Your task to perform on an android device: open the mobile data screen to see how much data has been used Image 0: 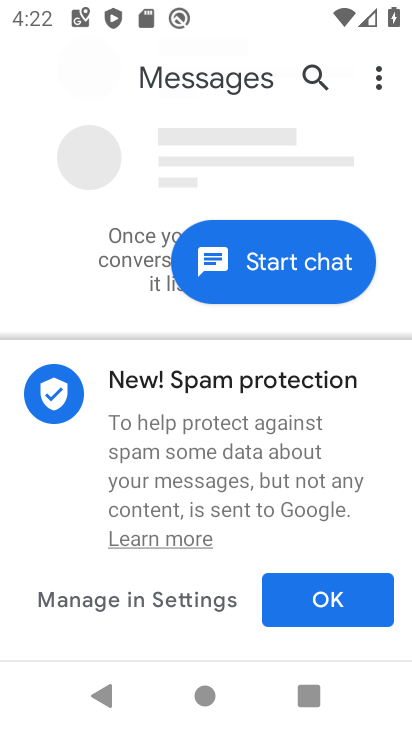
Step 0: press home button
Your task to perform on an android device: open the mobile data screen to see how much data has been used Image 1: 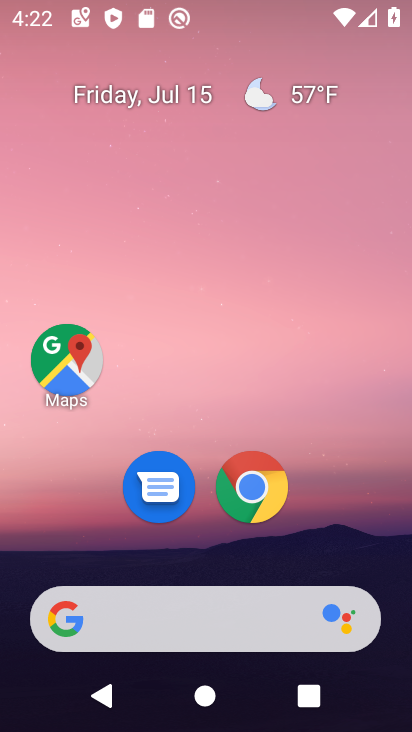
Step 1: drag from (220, 648) to (260, 92)
Your task to perform on an android device: open the mobile data screen to see how much data has been used Image 2: 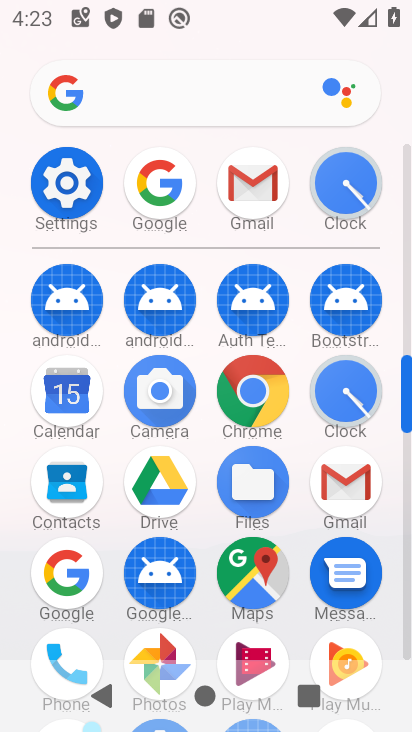
Step 2: click (68, 170)
Your task to perform on an android device: open the mobile data screen to see how much data has been used Image 3: 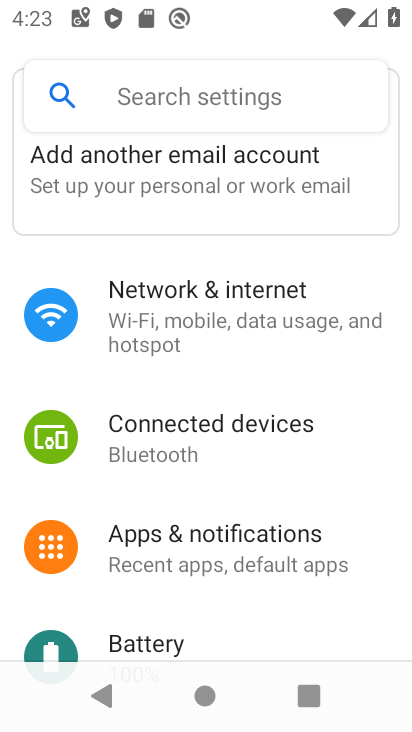
Step 3: click (224, 340)
Your task to perform on an android device: open the mobile data screen to see how much data has been used Image 4: 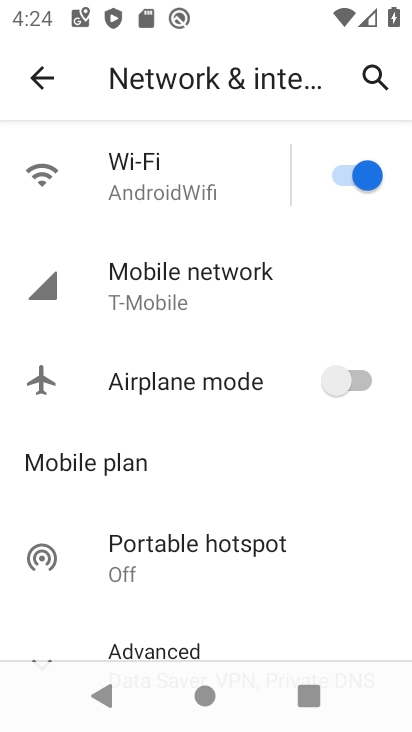
Step 4: click (224, 283)
Your task to perform on an android device: open the mobile data screen to see how much data has been used Image 5: 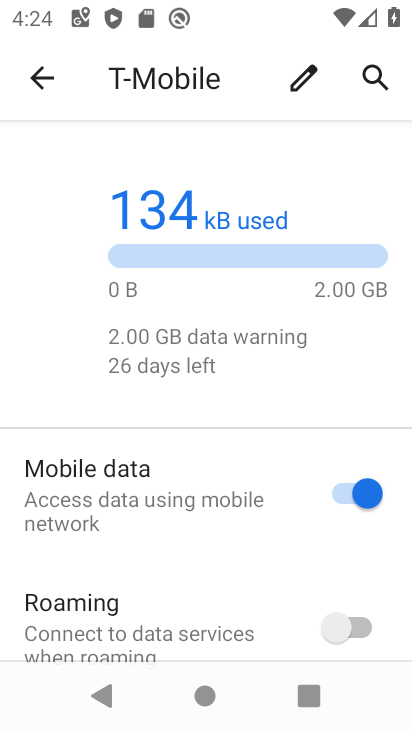
Step 5: drag from (128, 596) to (191, 253)
Your task to perform on an android device: open the mobile data screen to see how much data has been used Image 6: 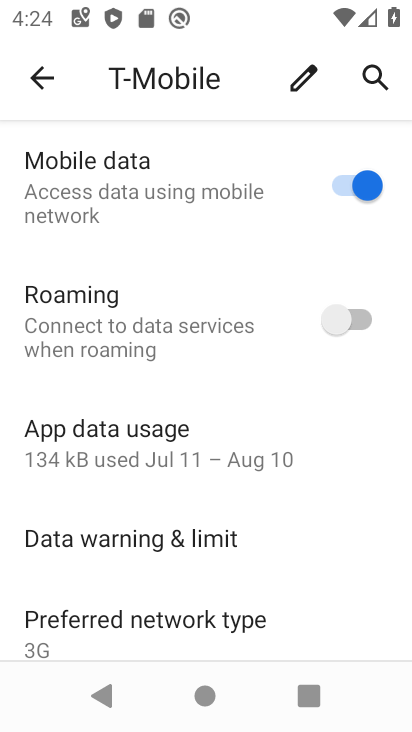
Step 6: click (192, 461)
Your task to perform on an android device: open the mobile data screen to see how much data has been used Image 7: 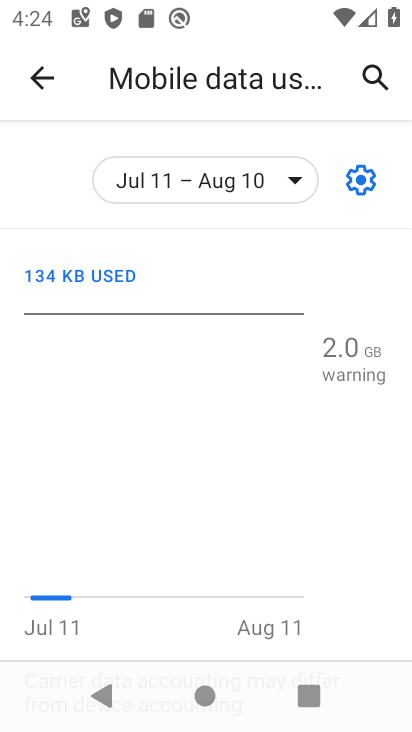
Step 7: task complete